Your task to perform on an android device: toggle javascript in the chrome app Image 0: 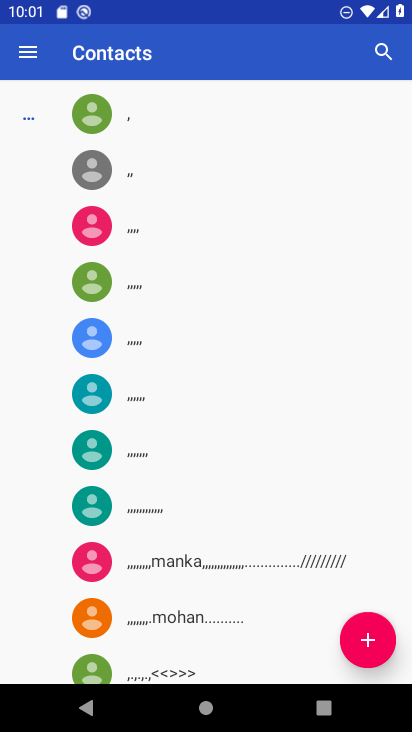
Step 0: press home button
Your task to perform on an android device: toggle javascript in the chrome app Image 1: 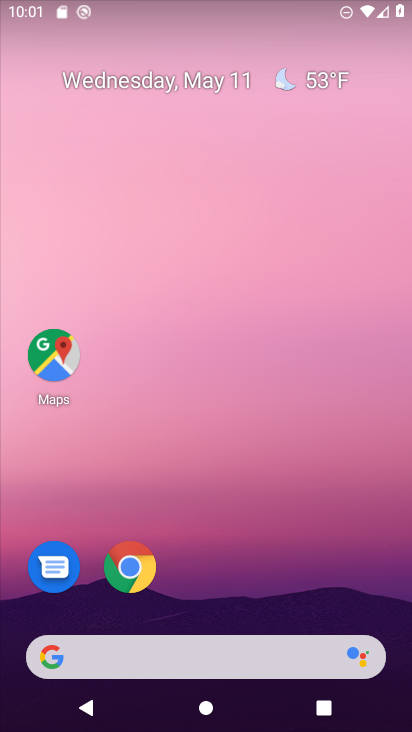
Step 1: click (124, 549)
Your task to perform on an android device: toggle javascript in the chrome app Image 2: 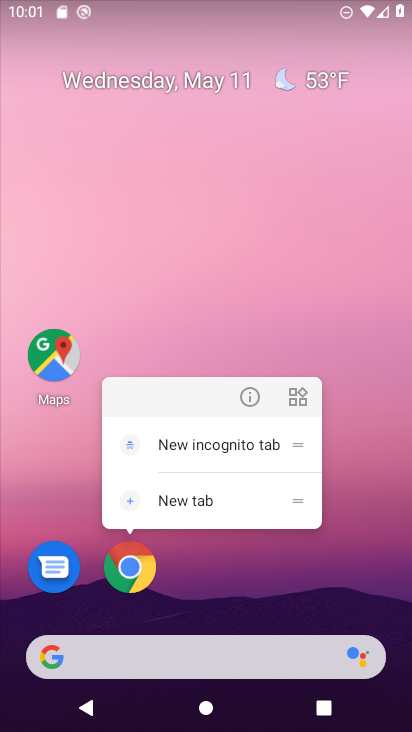
Step 2: click (125, 549)
Your task to perform on an android device: toggle javascript in the chrome app Image 3: 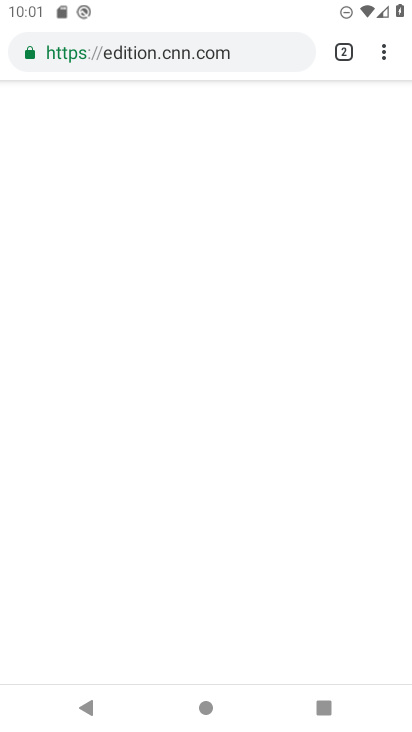
Step 3: click (385, 52)
Your task to perform on an android device: toggle javascript in the chrome app Image 4: 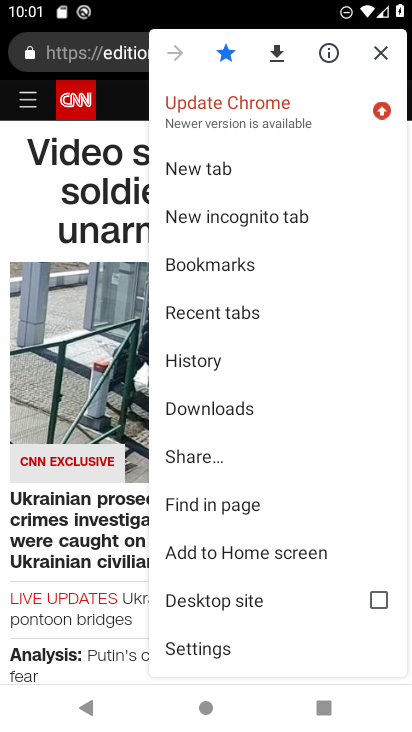
Step 4: click (231, 649)
Your task to perform on an android device: toggle javascript in the chrome app Image 5: 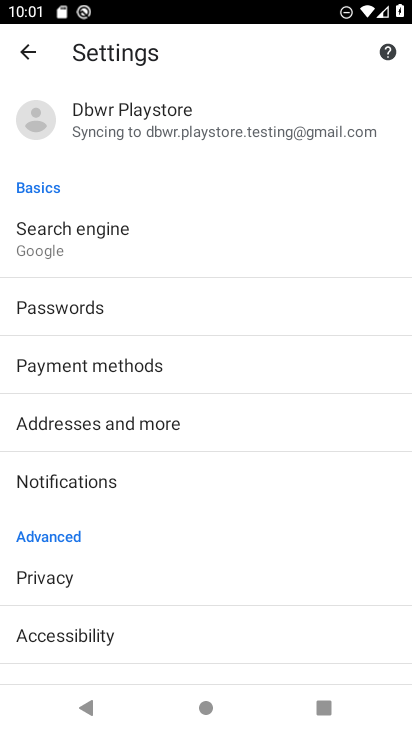
Step 5: drag from (201, 618) to (144, 274)
Your task to perform on an android device: toggle javascript in the chrome app Image 6: 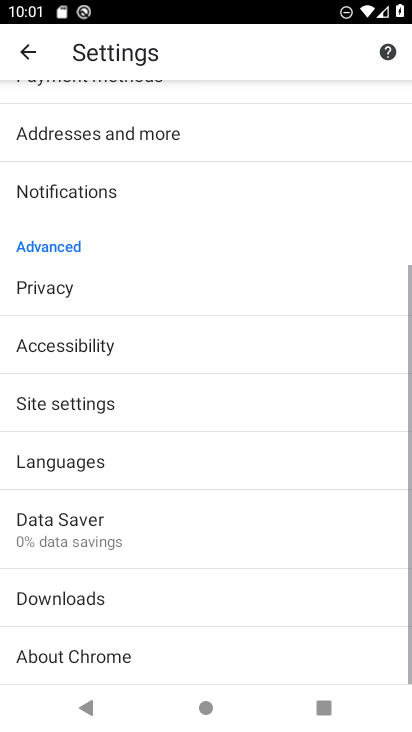
Step 6: click (103, 406)
Your task to perform on an android device: toggle javascript in the chrome app Image 7: 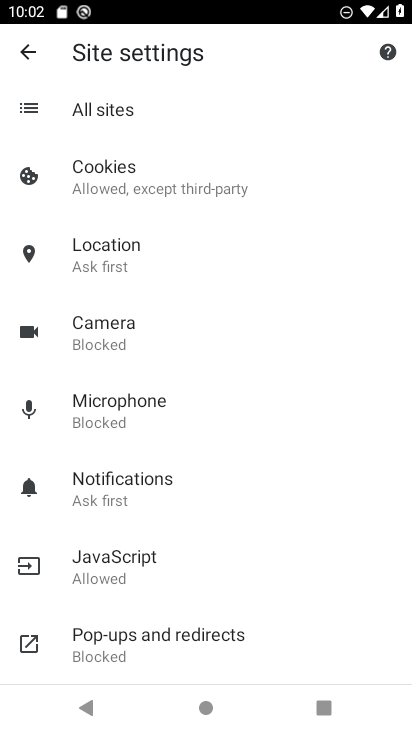
Step 7: click (135, 559)
Your task to perform on an android device: toggle javascript in the chrome app Image 8: 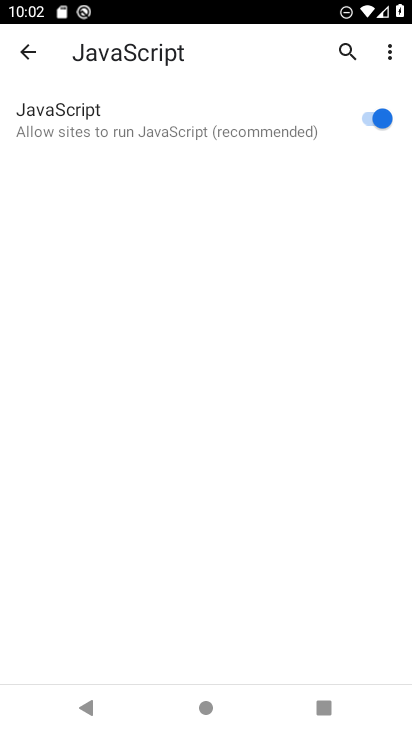
Step 8: click (385, 126)
Your task to perform on an android device: toggle javascript in the chrome app Image 9: 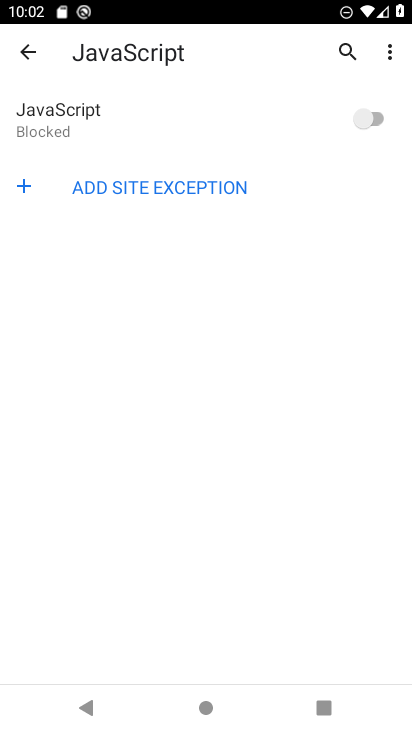
Step 9: task complete